Your task to perform on an android device: Go to notification settings Image 0: 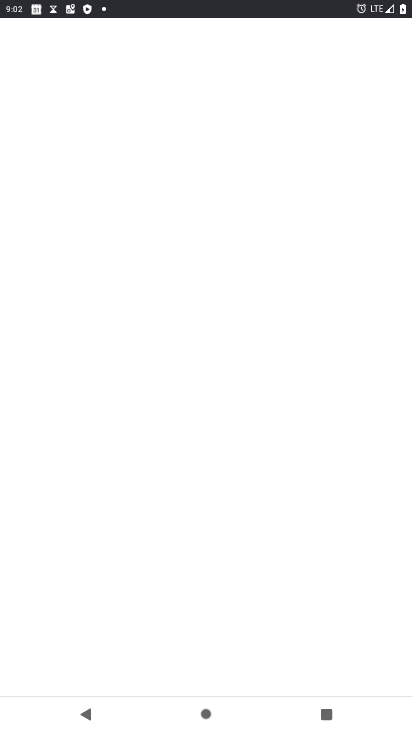
Step 0: drag from (195, 664) to (211, 421)
Your task to perform on an android device: Go to notification settings Image 1: 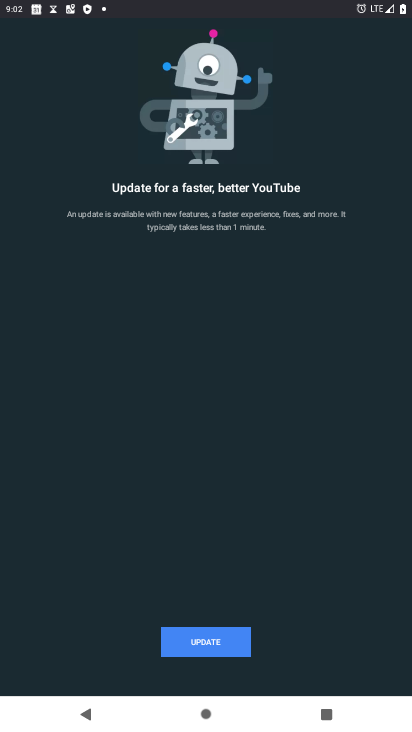
Step 1: press home button
Your task to perform on an android device: Go to notification settings Image 2: 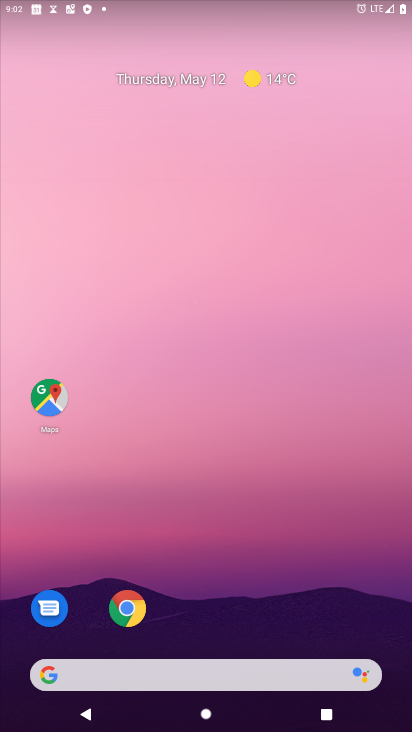
Step 2: drag from (215, 447) to (243, 273)
Your task to perform on an android device: Go to notification settings Image 3: 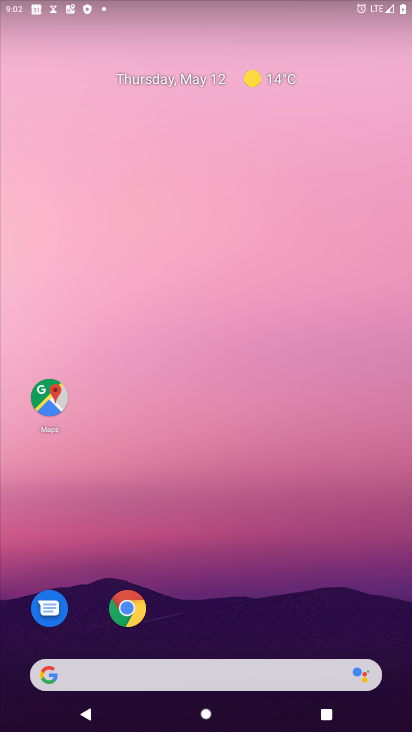
Step 3: drag from (217, 662) to (260, 186)
Your task to perform on an android device: Go to notification settings Image 4: 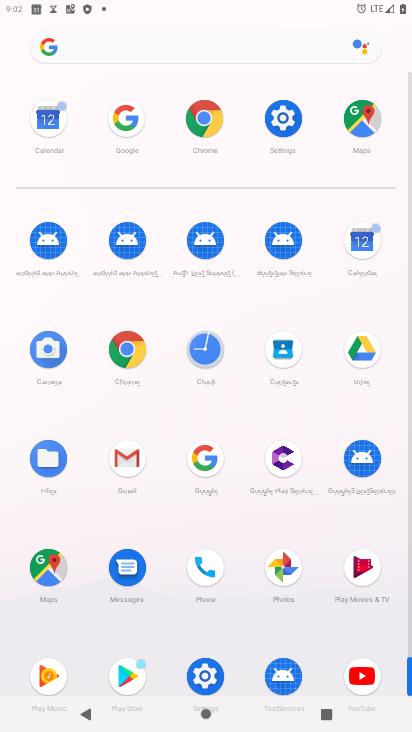
Step 4: click (275, 120)
Your task to perform on an android device: Go to notification settings Image 5: 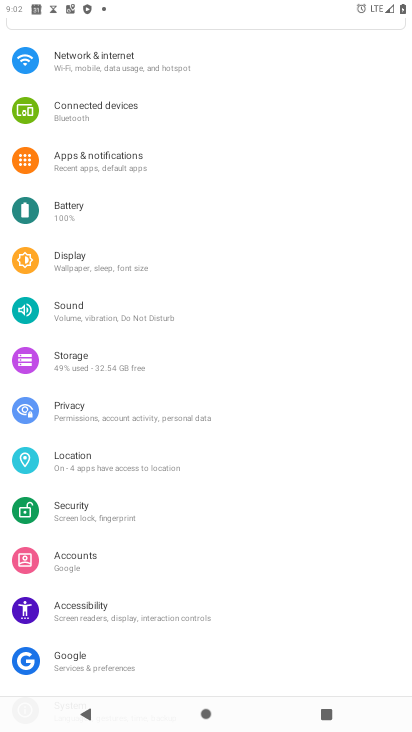
Step 5: click (84, 160)
Your task to perform on an android device: Go to notification settings Image 6: 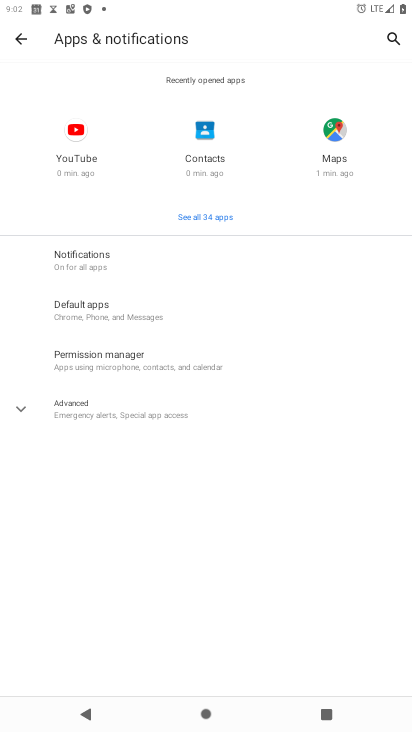
Step 6: click (140, 420)
Your task to perform on an android device: Go to notification settings Image 7: 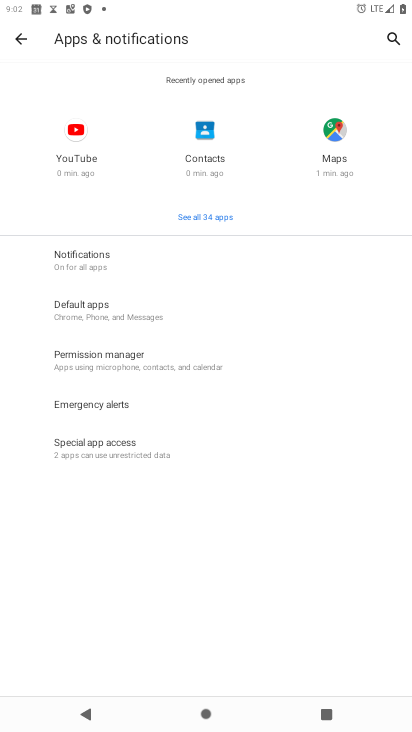
Step 7: task complete